Your task to perform on an android device: open a new tab in the chrome app Image 0: 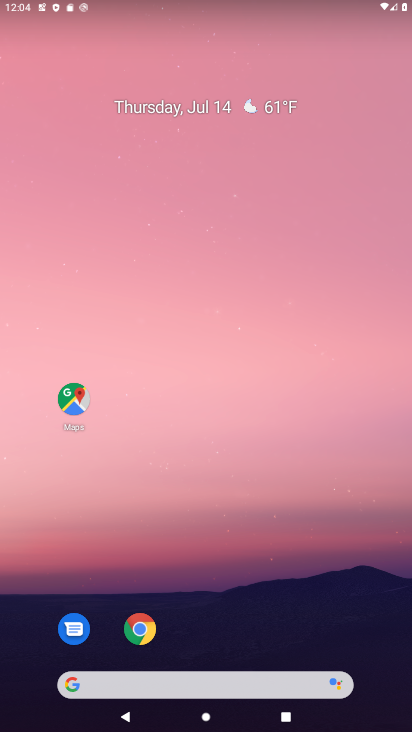
Step 0: click (137, 629)
Your task to perform on an android device: open a new tab in the chrome app Image 1: 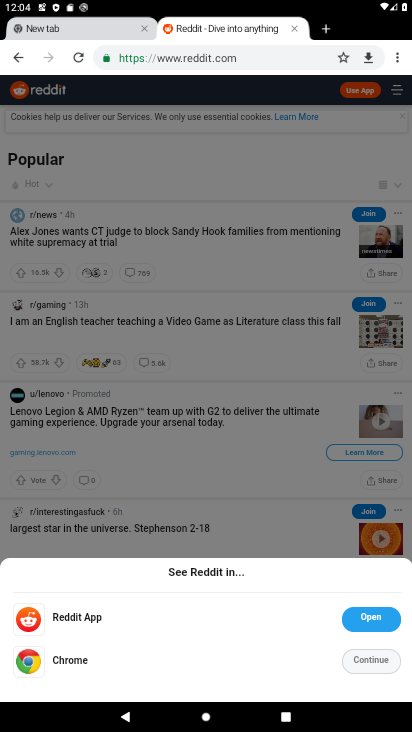
Step 1: click (397, 53)
Your task to perform on an android device: open a new tab in the chrome app Image 2: 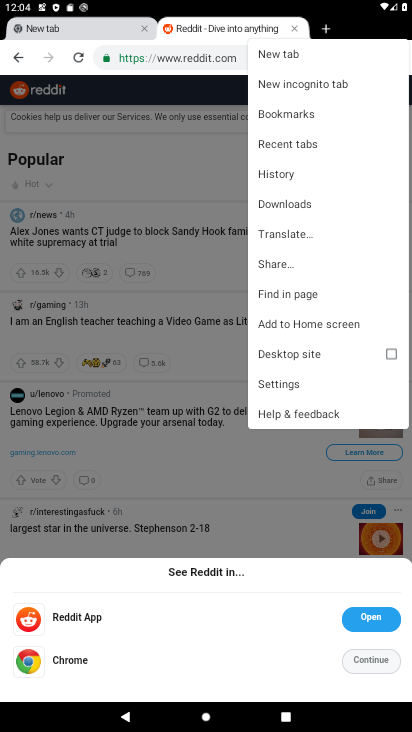
Step 2: click (275, 51)
Your task to perform on an android device: open a new tab in the chrome app Image 3: 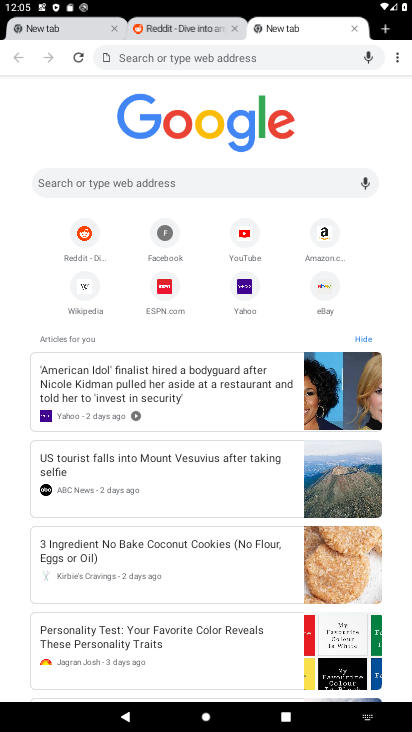
Step 3: task complete